Your task to perform on an android device: turn off location Image 0: 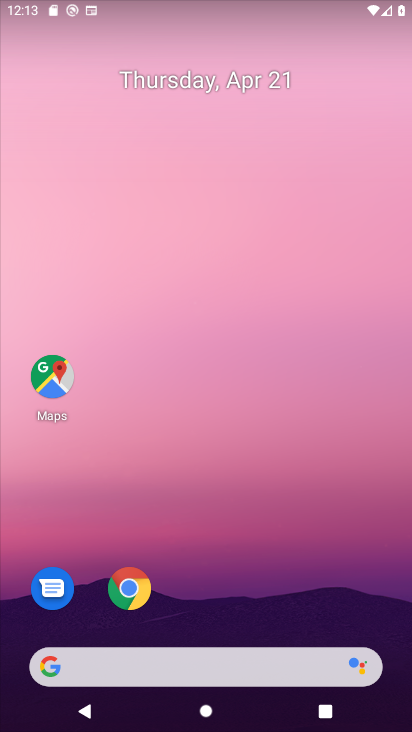
Step 0: drag from (222, 600) to (222, 69)
Your task to perform on an android device: turn off location Image 1: 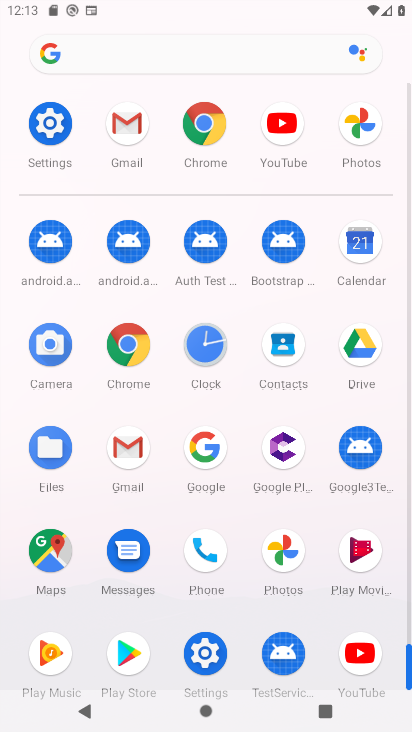
Step 1: click (48, 119)
Your task to perform on an android device: turn off location Image 2: 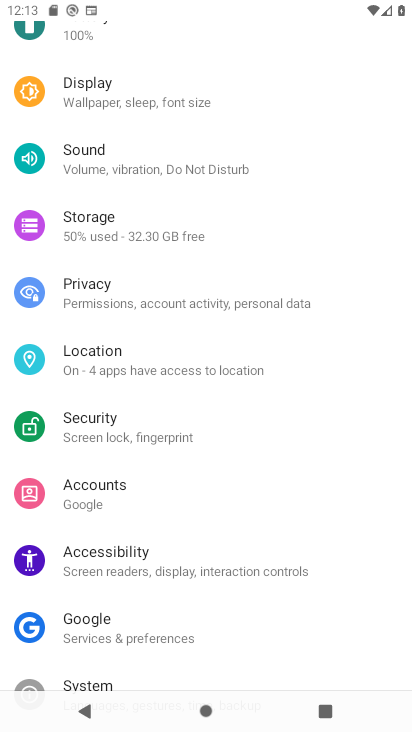
Step 2: click (132, 349)
Your task to perform on an android device: turn off location Image 3: 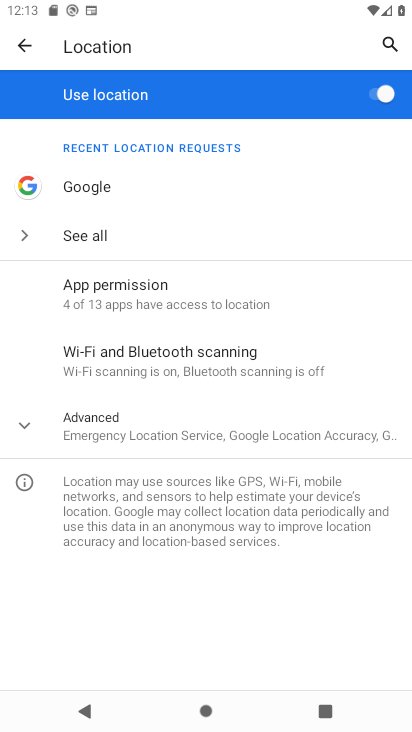
Step 3: click (377, 93)
Your task to perform on an android device: turn off location Image 4: 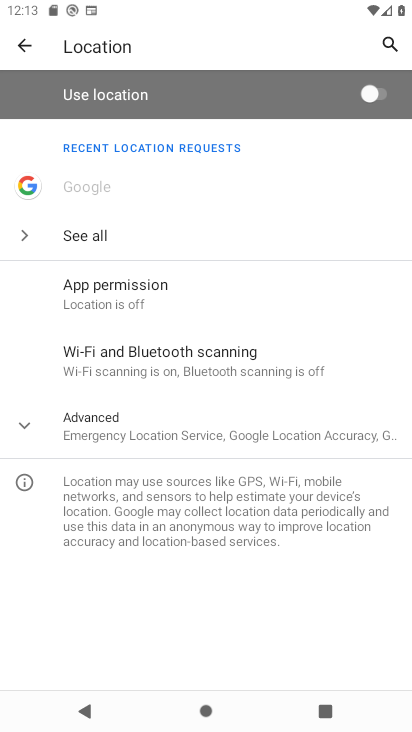
Step 4: task complete